Your task to perform on an android device: Go to Google maps Image 0: 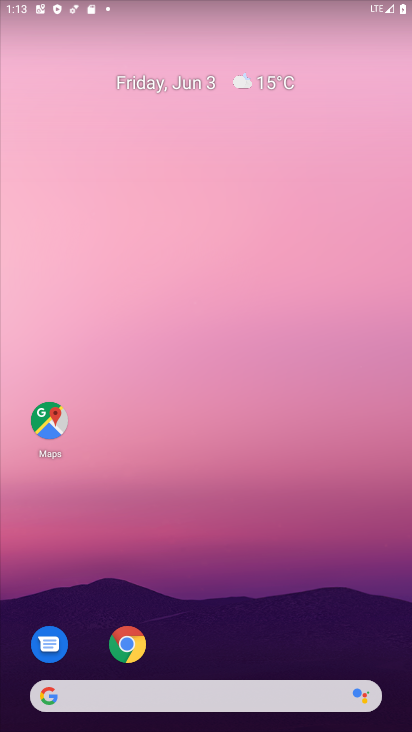
Step 0: click (69, 417)
Your task to perform on an android device: Go to Google maps Image 1: 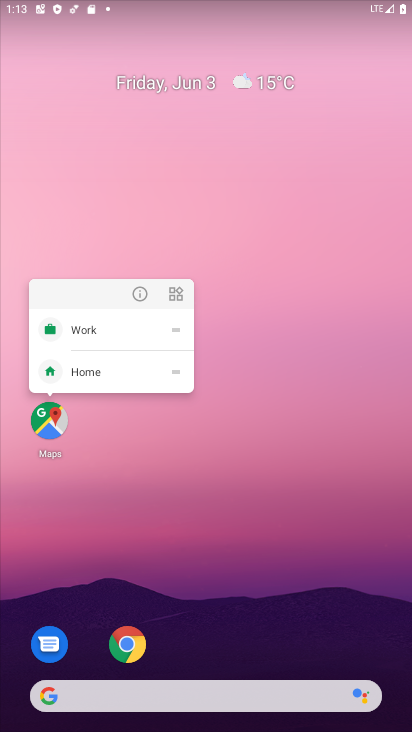
Step 1: click (59, 428)
Your task to perform on an android device: Go to Google maps Image 2: 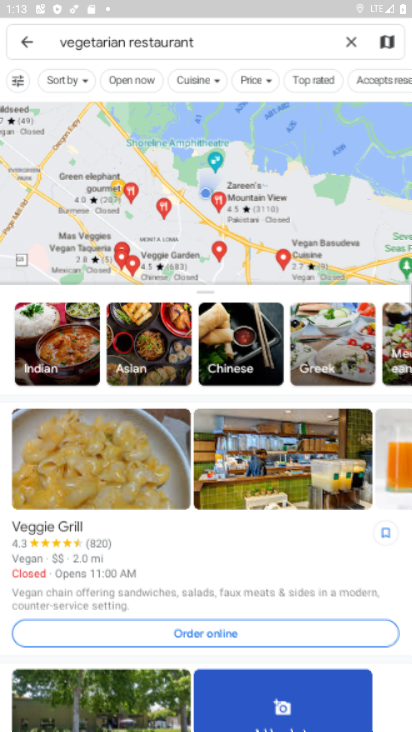
Step 2: click (29, 39)
Your task to perform on an android device: Go to Google maps Image 3: 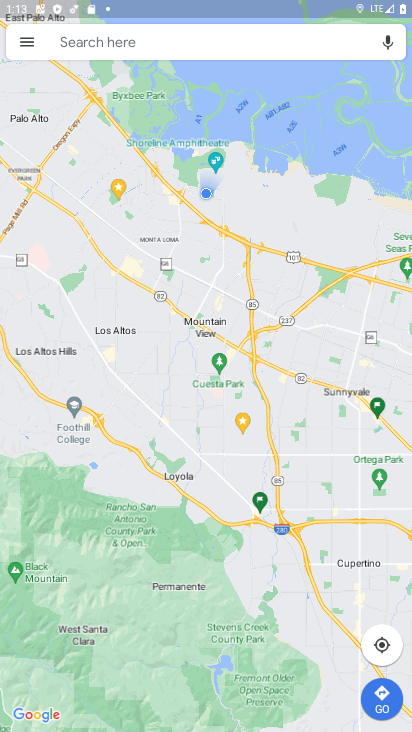
Step 3: task complete